Your task to perform on an android device: check the backup settings in the google photos Image 0: 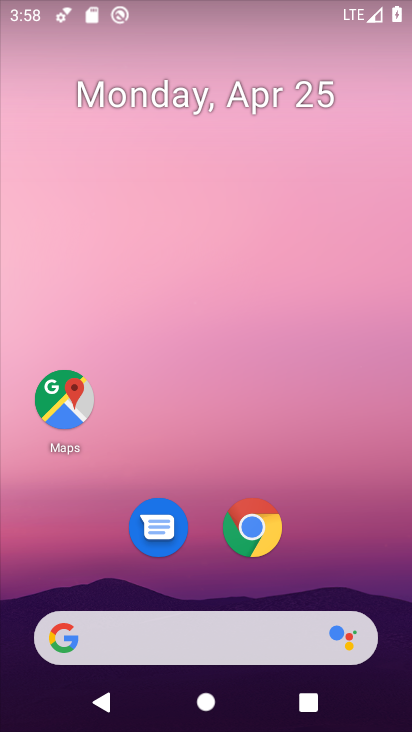
Step 0: drag from (394, 599) to (349, 165)
Your task to perform on an android device: check the backup settings in the google photos Image 1: 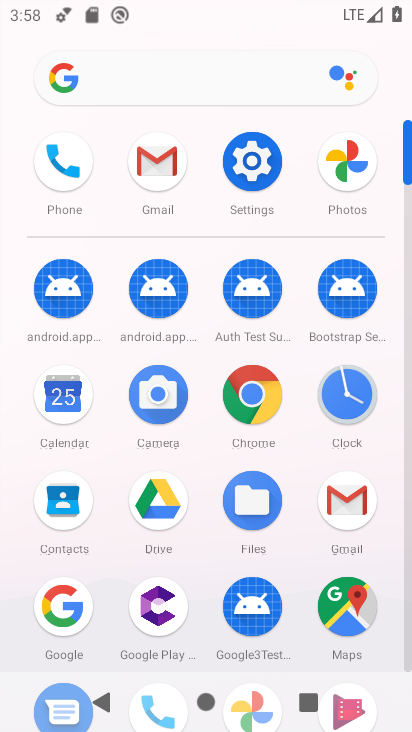
Step 1: click (406, 654)
Your task to perform on an android device: check the backup settings in the google photos Image 2: 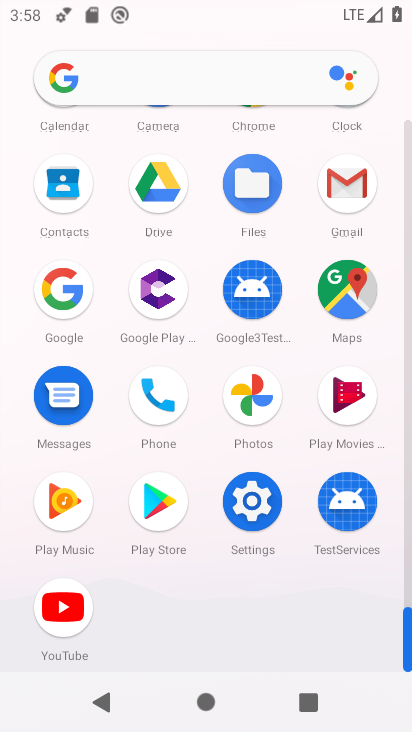
Step 2: click (250, 393)
Your task to perform on an android device: check the backup settings in the google photos Image 3: 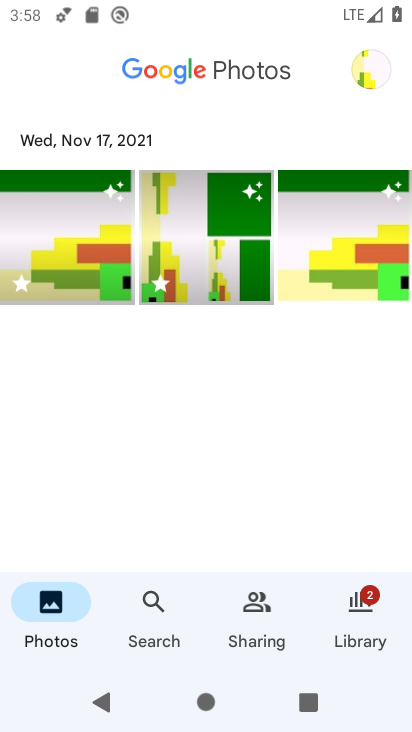
Step 3: click (368, 75)
Your task to perform on an android device: check the backup settings in the google photos Image 4: 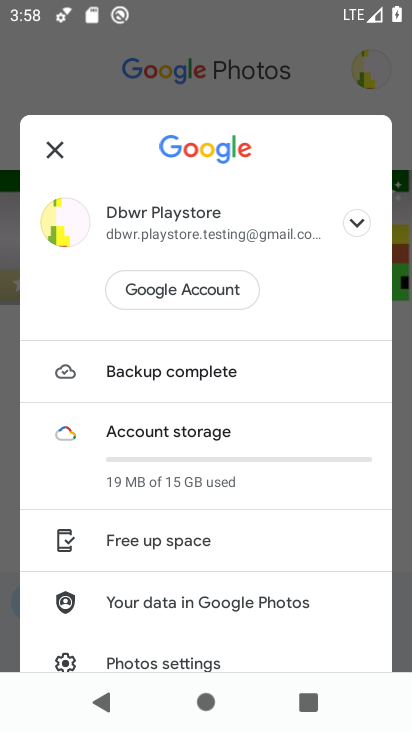
Step 4: drag from (235, 577) to (271, 232)
Your task to perform on an android device: check the backup settings in the google photos Image 5: 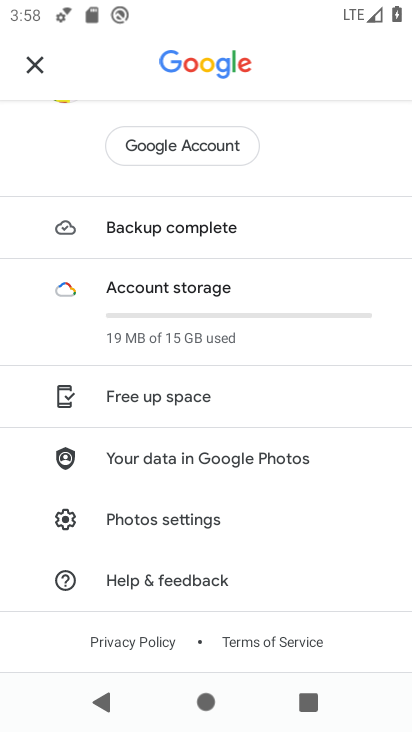
Step 5: click (137, 518)
Your task to perform on an android device: check the backup settings in the google photos Image 6: 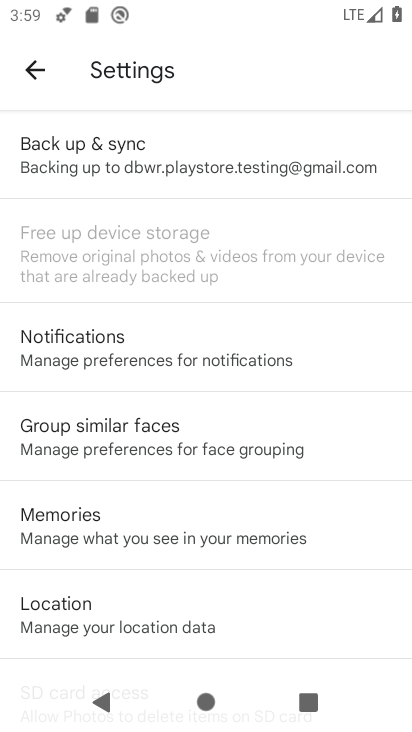
Step 6: click (139, 166)
Your task to perform on an android device: check the backup settings in the google photos Image 7: 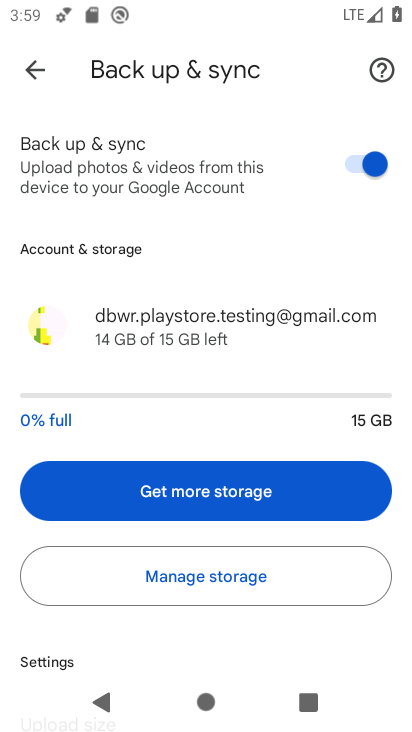
Step 7: task complete